Your task to perform on an android device: Clear the shopping cart on ebay.com. Add logitech g pro to the cart on ebay.com, then select checkout. Image 0: 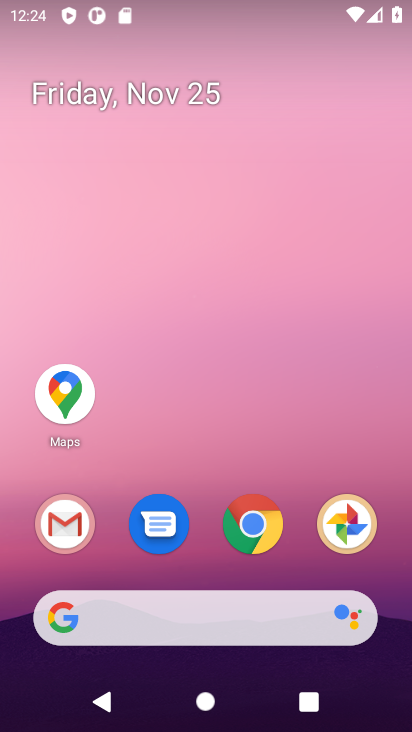
Step 0: click (259, 536)
Your task to perform on an android device: Clear the shopping cart on ebay.com. Add logitech g pro to the cart on ebay.com, then select checkout. Image 1: 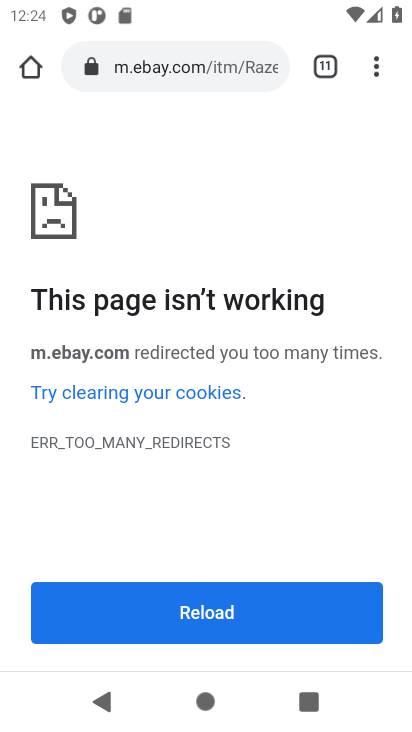
Step 1: click (200, 70)
Your task to perform on an android device: Clear the shopping cart on ebay.com. Add logitech g pro to the cart on ebay.com, then select checkout. Image 2: 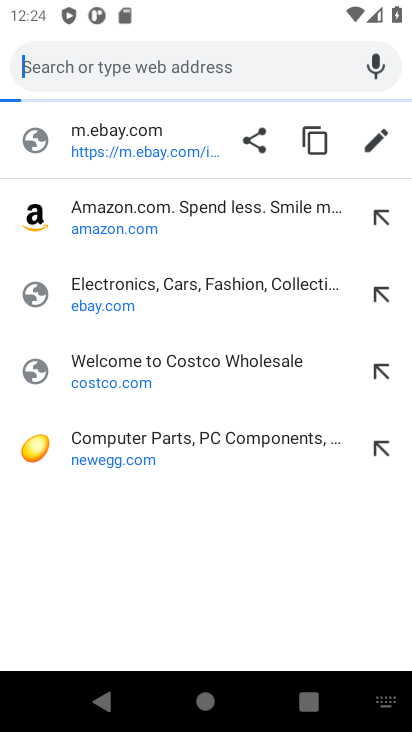
Step 2: click (122, 301)
Your task to perform on an android device: Clear the shopping cart on ebay.com. Add logitech g pro to the cart on ebay.com, then select checkout. Image 3: 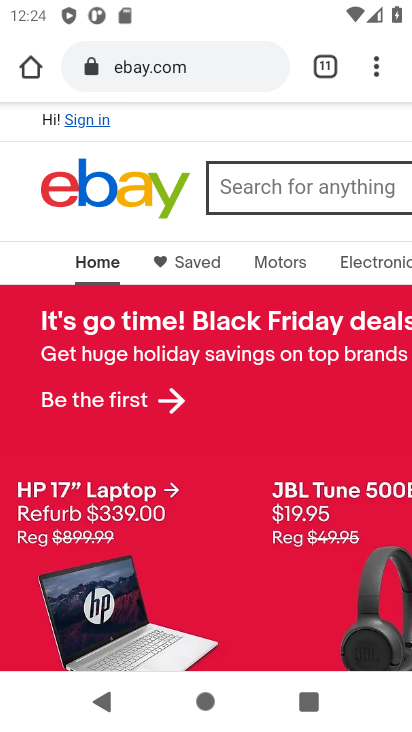
Step 3: drag from (330, 224) to (33, 215)
Your task to perform on an android device: Clear the shopping cart on ebay.com. Add logitech g pro to the cart on ebay.com, then select checkout. Image 4: 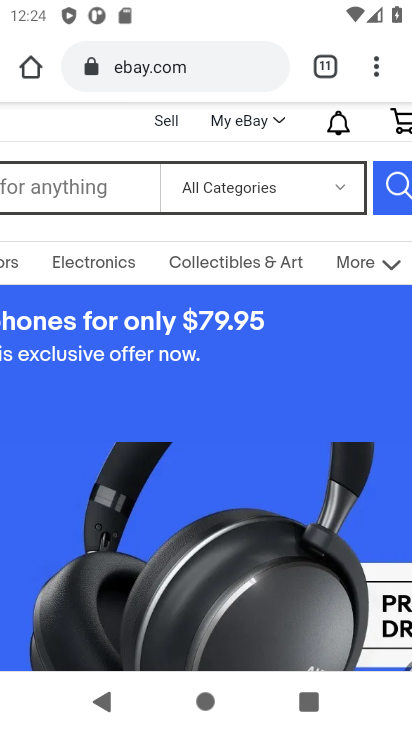
Step 4: drag from (347, 223) to (117, 209)
Your task to perform on an android device: Clear the shopping cart on ebay.com. Add logitech g pro to the cart on ebay.com, then select checkout. Image 5: 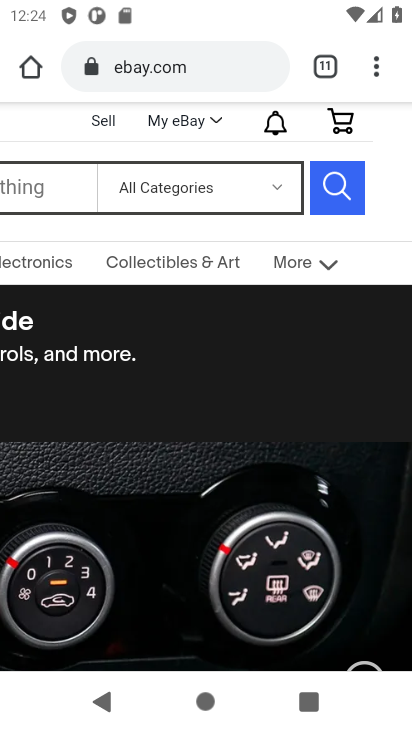
Step 5: click (338, 126)
Your task to perform on an android device: Clear the shopping cart on ebay.com. Add logitech g pro to the cart on ebay.com, then select checkout. Image 6: 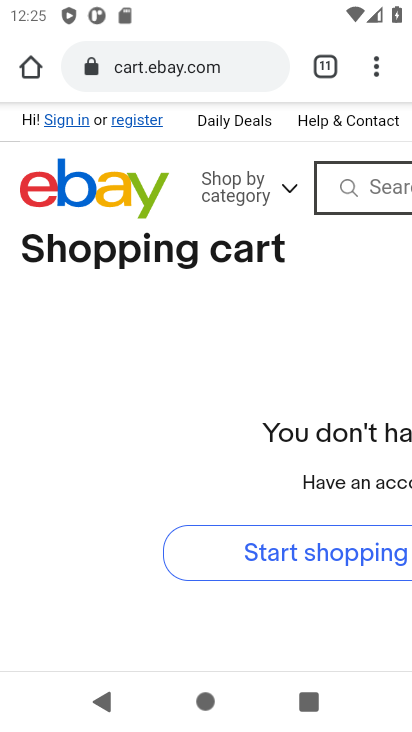
Step 6: click (369, 185)
Your task to perform on an android device: Clear the shopping cart on ebay.com. Add logitech g pro to the cart on ebay.com, then select checkout. Image 7: 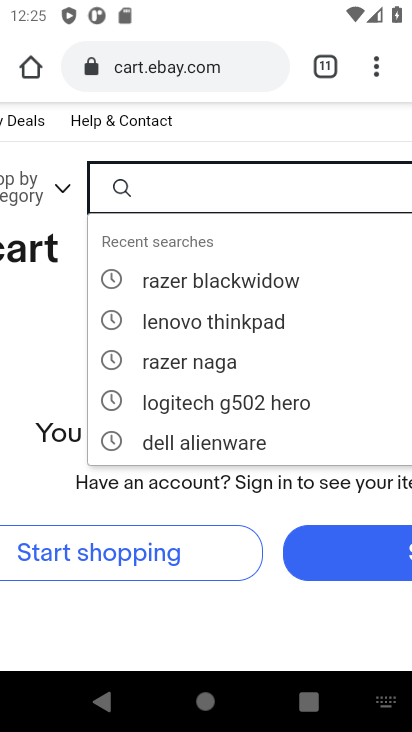
Step 7: type "logitech g pro"
Your task to perform on an android device: Clear the shopping cart on ebay.com. Add logitech g pro to the cart on ebay.com, then select checkout. Image 8: 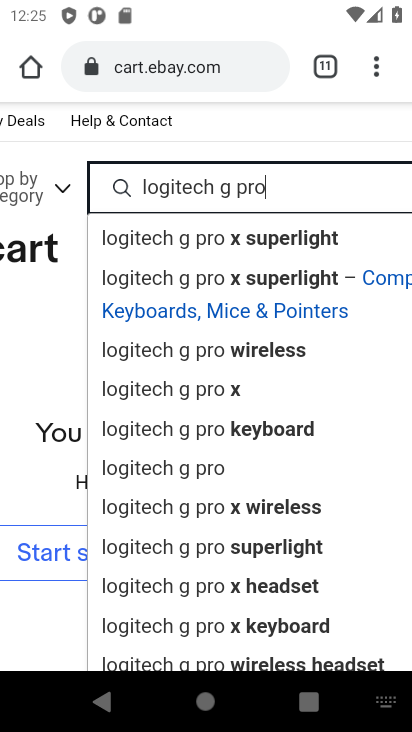
Step 8: click (178, 471)
Your task to perform on an android device: Clear the shopping cart on ebay.com. Add logitech g pro to the cart on ebay.com, then select checkout. Image 9: 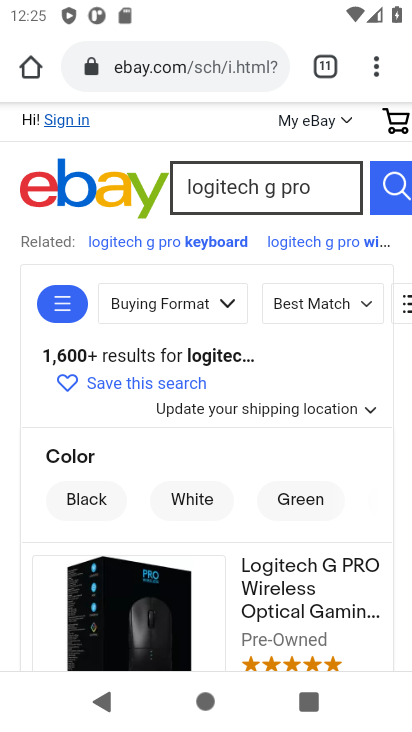
Step 9: drag from (194, 556) to (219, 356)
Your task to perform on an android device: Clear the shopping cart on ebay.com. Add logitech g pro to the cart on ebay.com, then select checkout. Image 10: 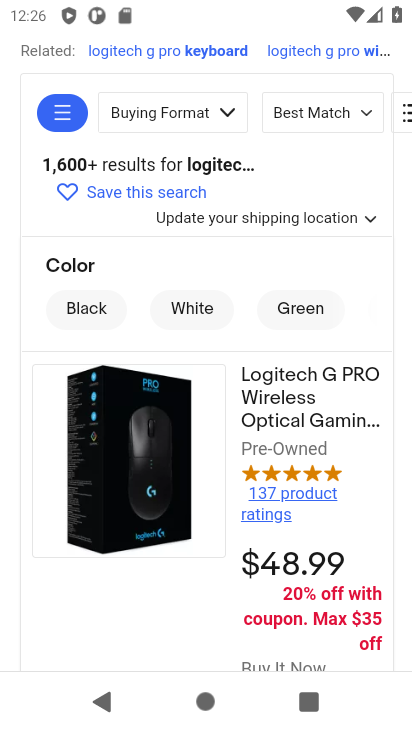
Step 10: drag from (189, 491) to (209, 370)
Your task to perform on an android device: Clear the shopping cart on ebay.com. Add logitech g pro to the cart on ebay.com, then select checkout. Image 11: 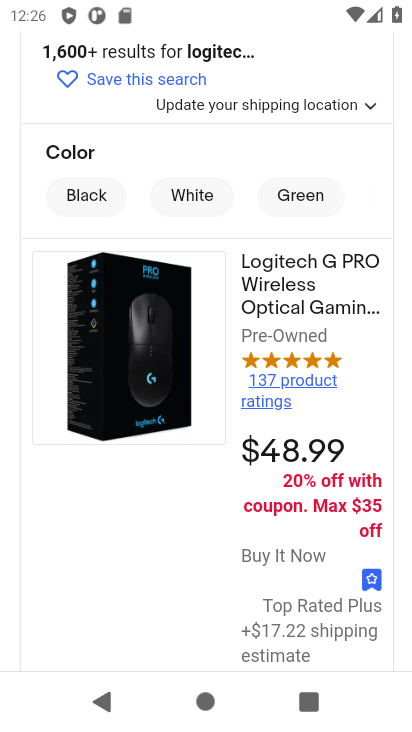
Step 11: click (155, 415)
Your task to perform on an android device: Clear the shopping cart on ebay.com. Add logitech g pro to the cart on ebay.com, then select checkout. Image 12: 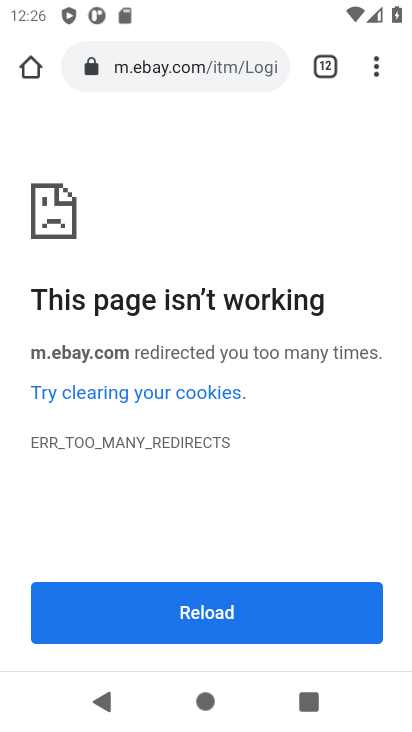
Step 12: task complete